Your task to perform on an android device: turn on javascript in the chrome app Image 0: 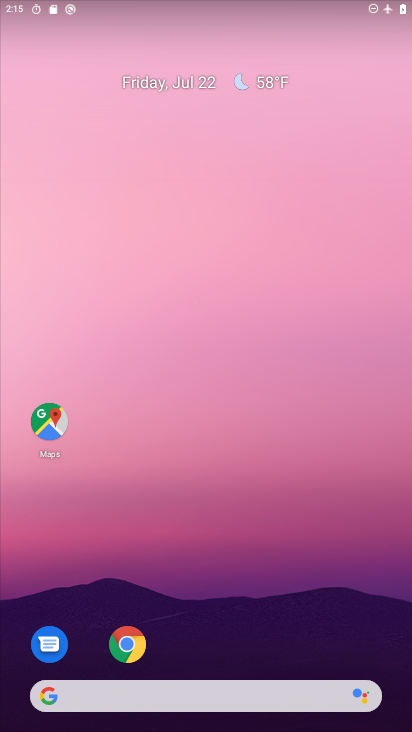
Step 0: click (132, 660)
Your task to perform on an android device: turn on javascript in the chrome app Image 1: 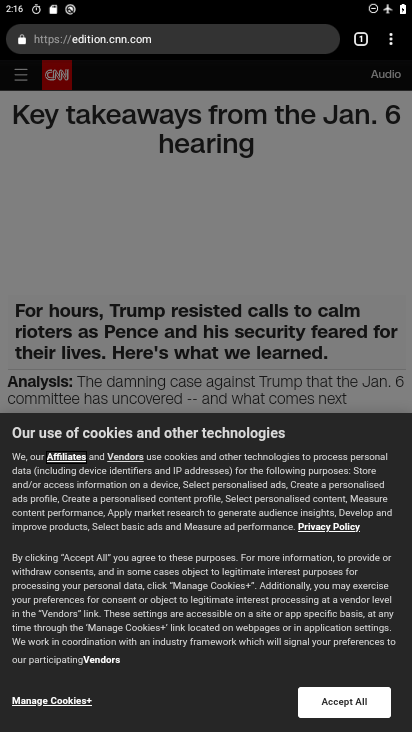
Step 1: click (394, 42)
Your task to perform on an android device: turn on javascript in the chrome app Image 2: 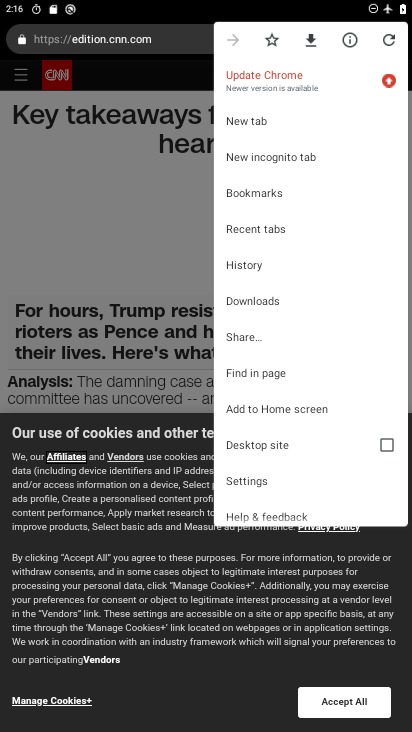
Step 2: click (278, 476)
Your task to perform on an android device: turn on javascript in the chrome app Image 3: 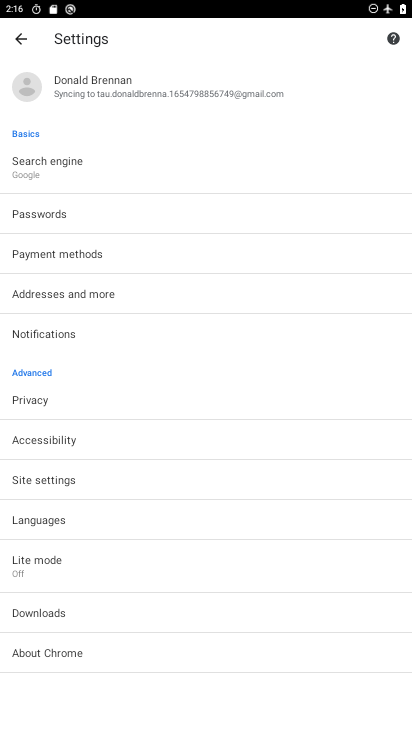
Step 3: click (82, 484)
Your task to perform on an android device: turn on javascript in the chrome app Image 4: 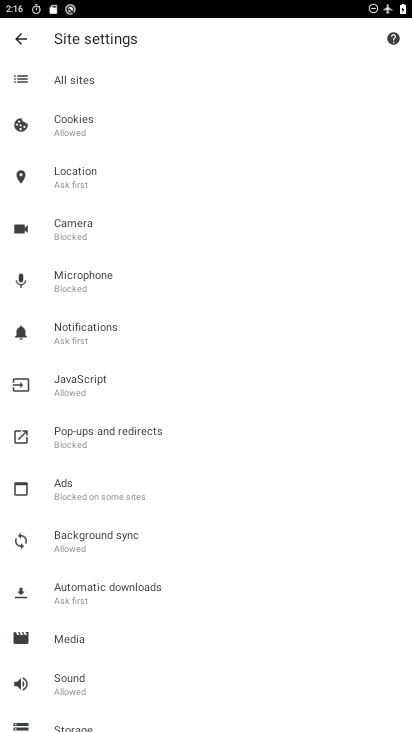
Step 4: click (143, 381)
Your task to perform on an android device: turn on javascript in the chrome app Image 5: 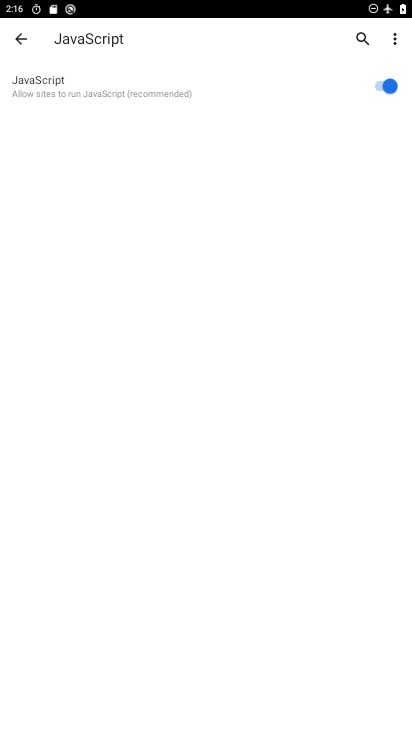
Step 5: task complete